Your task to perform on an android device: Go to battery settings Image 0: 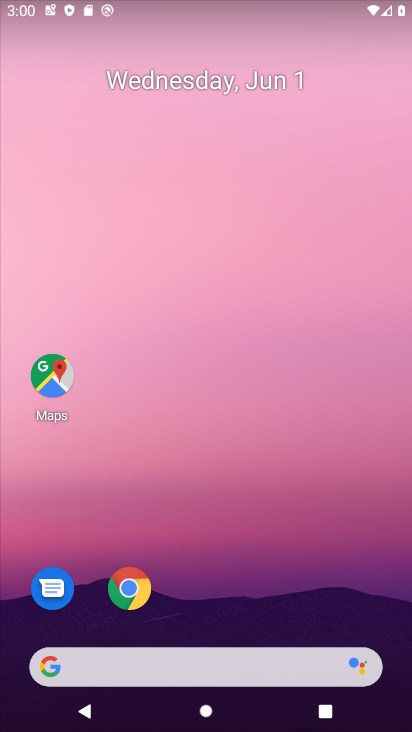
Step 0: drag from (355, 599) to (333, 266)
Your task to perform on an android device: Go to battery settings Image 1: 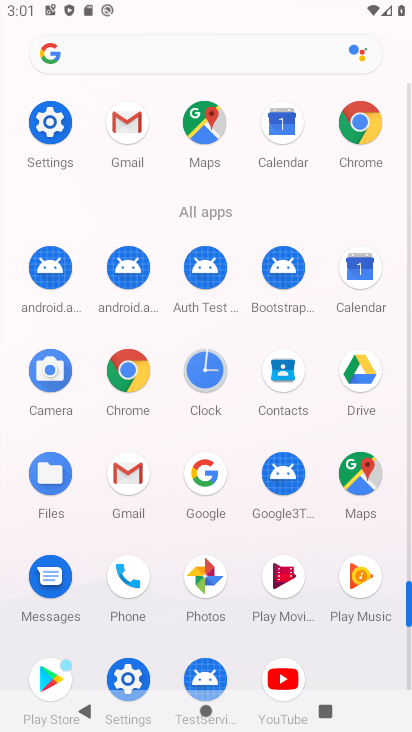
Step 1: click (133, 672)
Your task to perform on an android device: Go to battery settings Image 2: 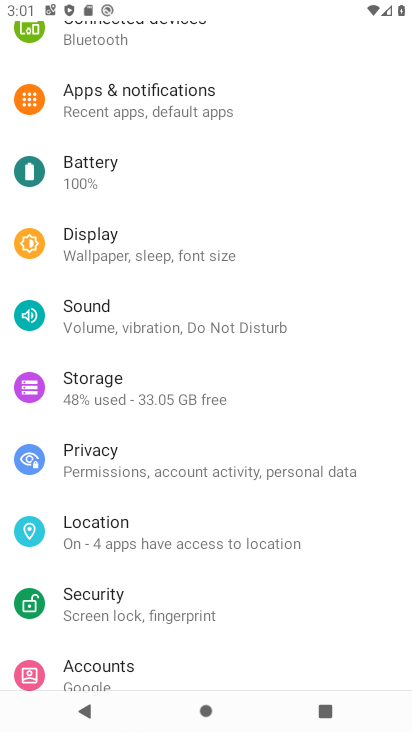
Step 2: click (125, 162)
Your task to perform on an android device: Go to battery settings Image 3: 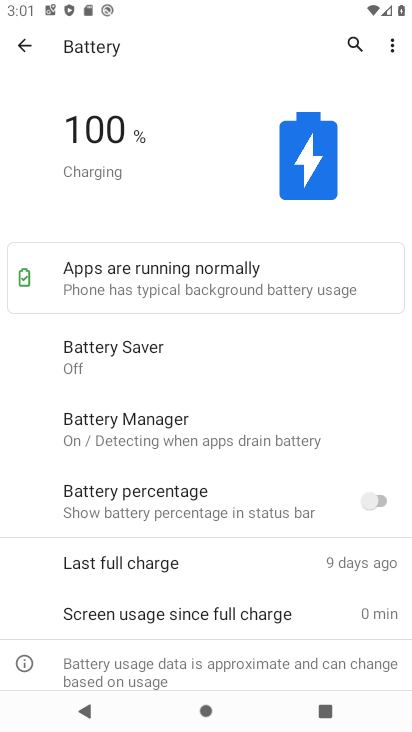
Step 3: task complete